Your task to perform on an android device: turn off picture-in-picture Image 0: 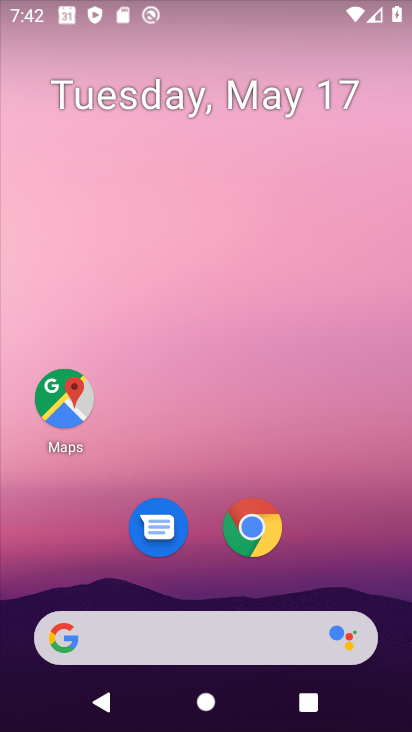
Step 0: press home button
Your task to perform on an android device: turn off picture-in-picture Image 1: 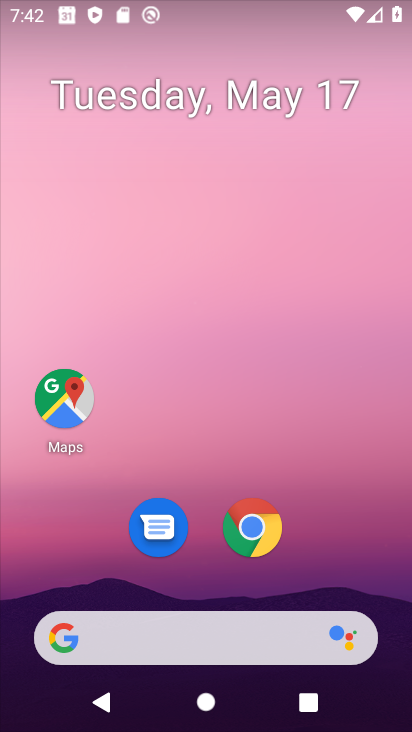
Step 1: drag from (231, 665) to (181, 208)
Your task to perform on an android device: turn off picture-in-picture Image 2: 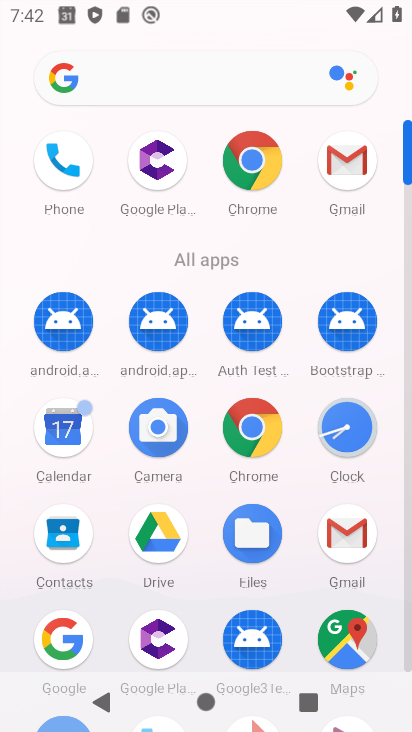
Step 2: drag from (197, 494) to (194, 312)
Your task to perform on an android device: turn off picture-in-picture Image 3: 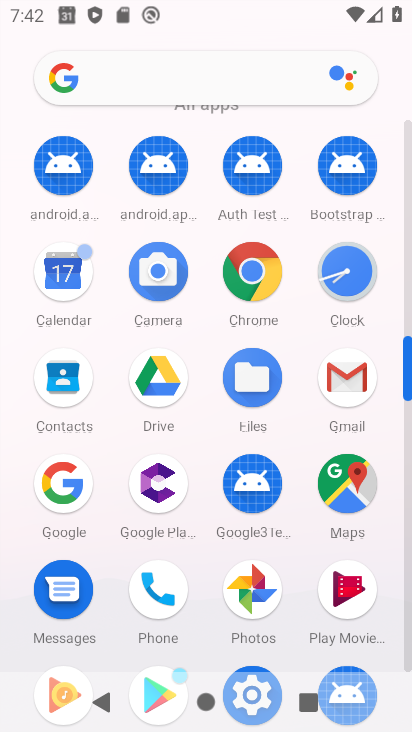
Step 3: click (255, 664)
Your task to perform on an android device: turn off picture-in-picture Image 4: 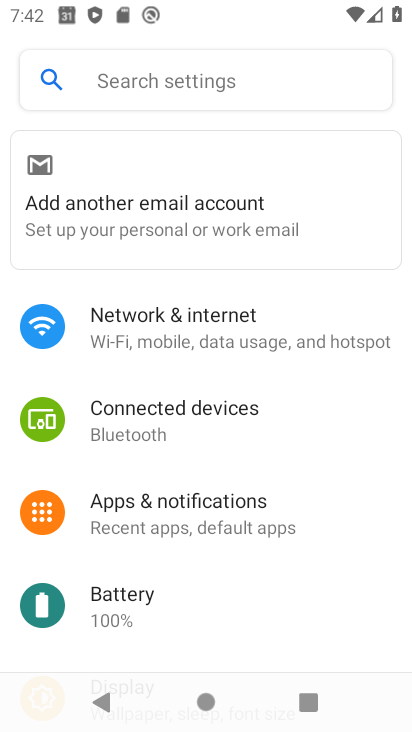
Step 4: click (180, 96)
Your task to perform on an android device: turn off picture-in-picture Image 5: 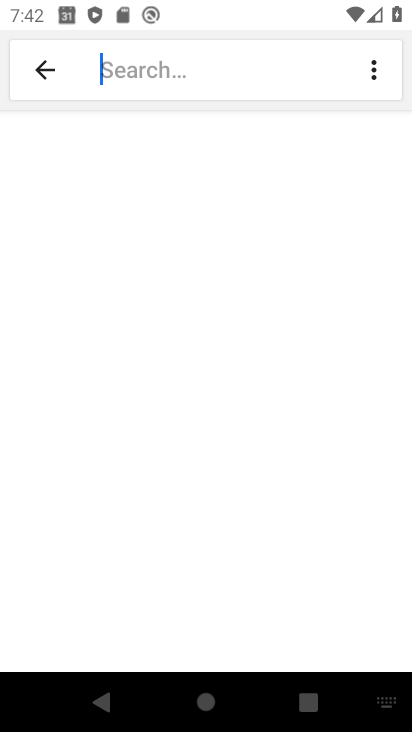
Step 5: click (373, 695)
Your task to perform on an android device: turn off picture-in-picture Image 6: 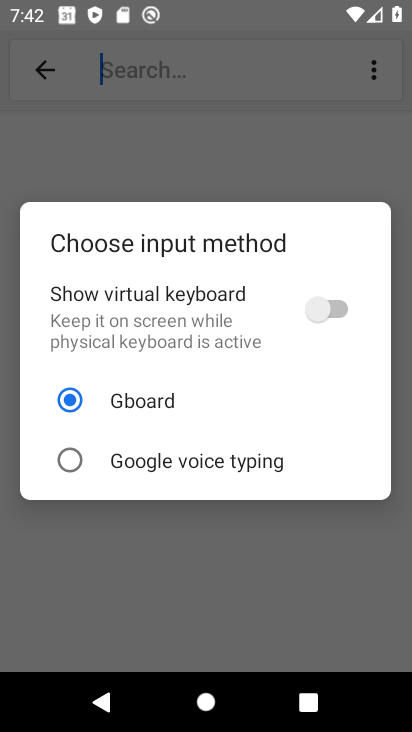
Step 6: click (324, 312)
Your task to perform on an android device: turn off picture-in-picture Image 7: 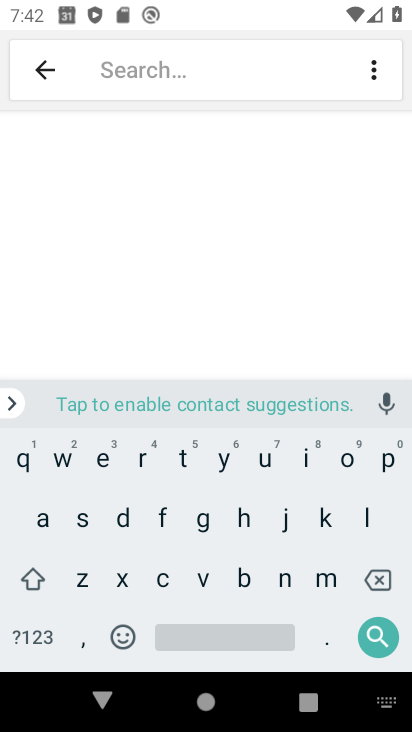
Step 7: click (379, 461)
Your task to perform on an android device: turn off picture-in-picture Image 8: 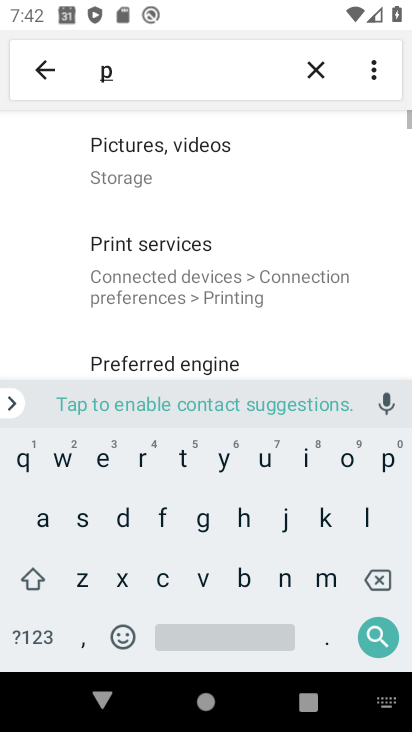
Step 8: click (302, 461)
Your task to perform on an android device: turn off picture-in-picture Image 9: 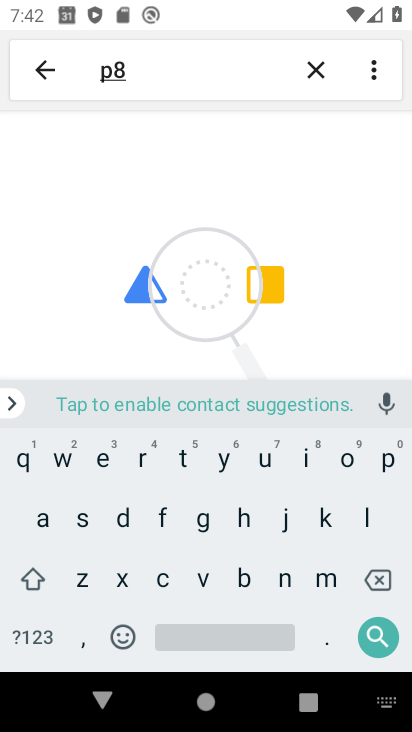
Step 9: click (377, 579)
Your task to perform on an android device: turn off picture-in-picture Image 10: 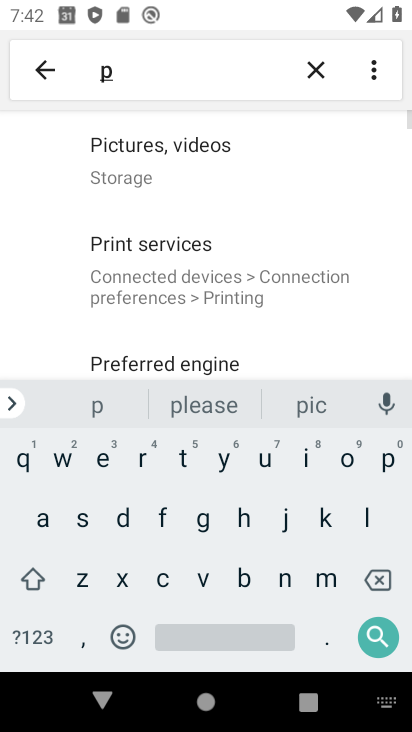
Step 10: click (311, 465)
Your task to perform on an android device: turn off picture-in-picture Image 11: 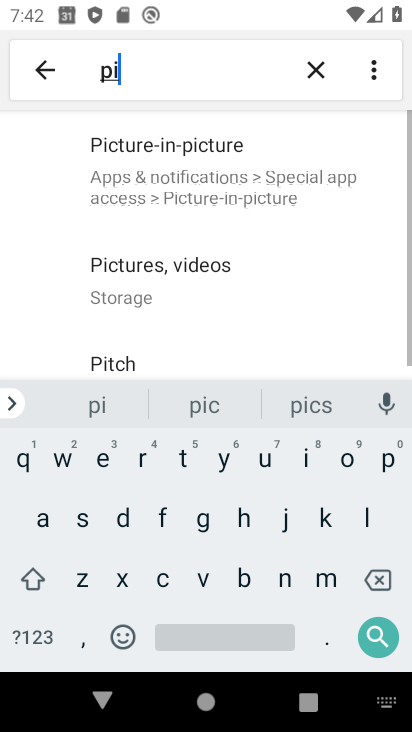
Step 11: click (226, 195)
Your task to perform on an android device: turn off picture-in-picture Image 12: 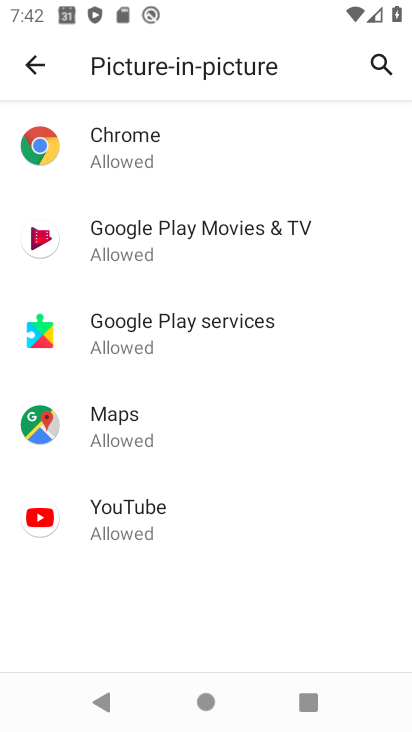
Step 12: task complete